Your task to perform on an android device: Go to Reddit.com Image 0: 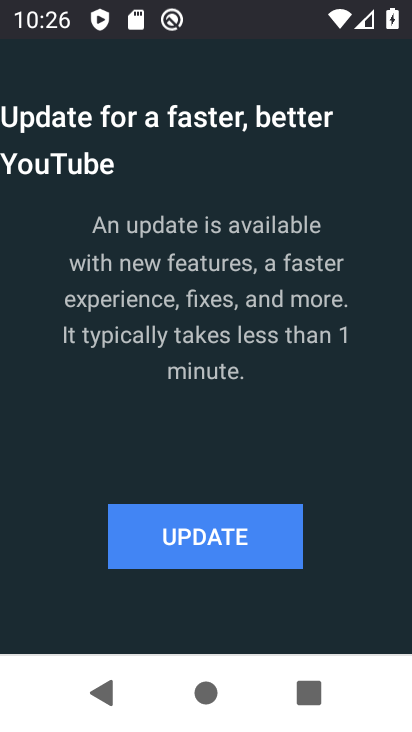
Step 0: press home button
Your task to perform on an android device: Go to Reddit.com Image 1: 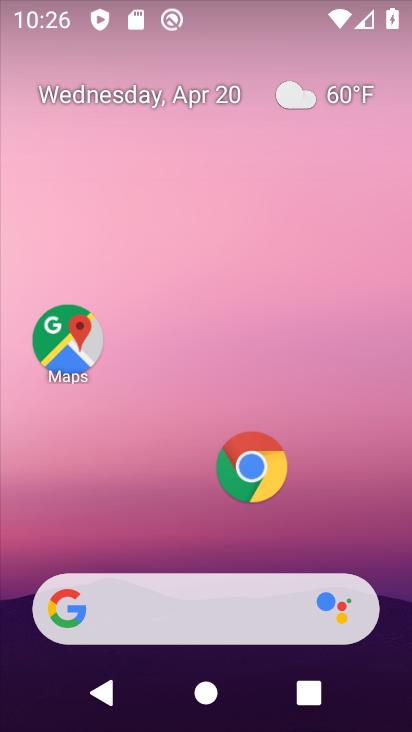
Step 1: click (259, 481)
Your task to perform on an android device: Go to Reddit.com Image 2: 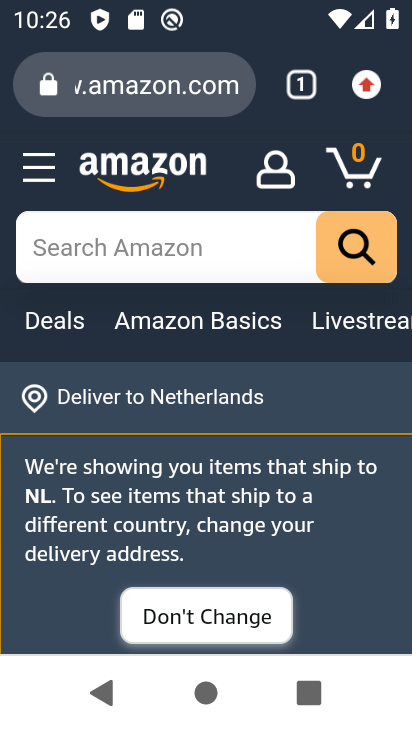
Step 2: click (158, 85)
Your task to perform on an android device: Go to Reddit.com Image 3: 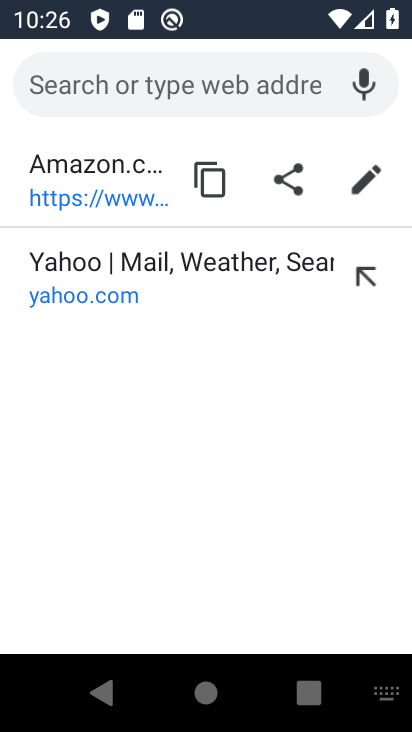
Step 3: type "Reddit.com"
Your task to perform on an android device: Go to Reddit.com Image 4: 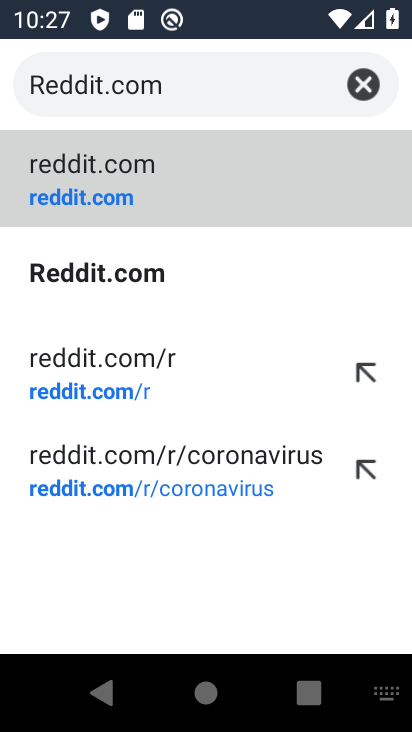
Step 4: click (56, 192)
Your task to perform on an android device: Go to Reddit.com Image 5: 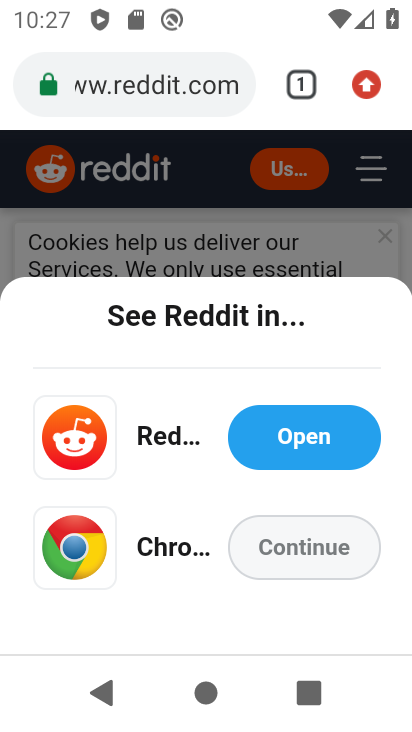
Step 5: task complete